Your task to perform on an android device: Show me recent news Image 0: 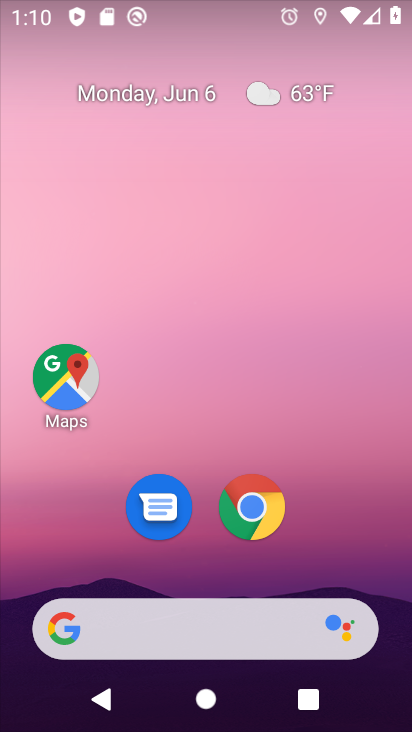
Step 0: click (168, 624)
Your task to perform on an android device: Show me recent news Image 1: 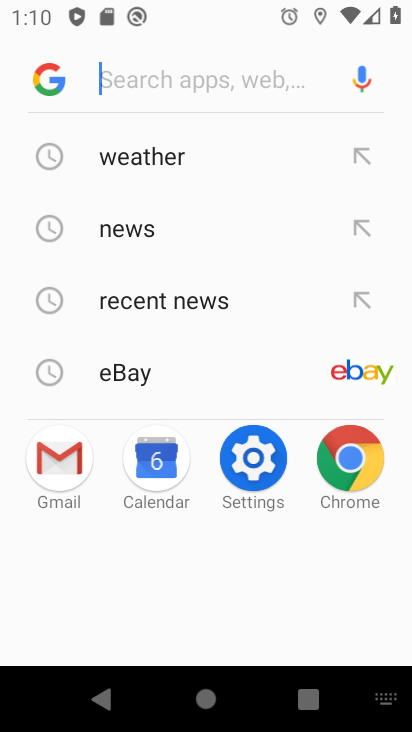
Step 1: click (141, 302)
Your task to perform on an android device: Show me recent news Image 2: 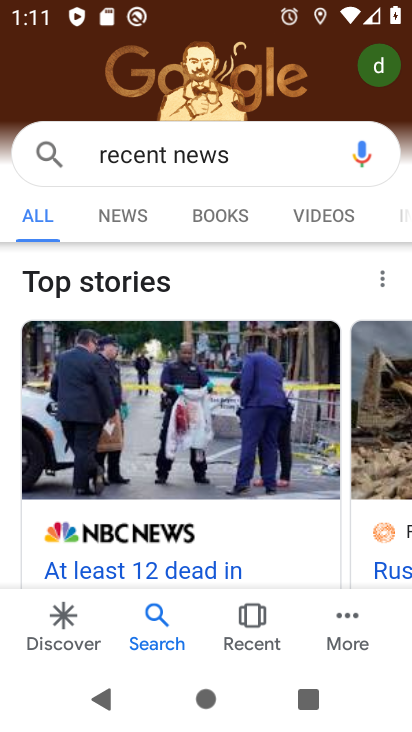
Step 2: click (129, 217)
Your task to perform on an android device: Show me recent news Image 3: 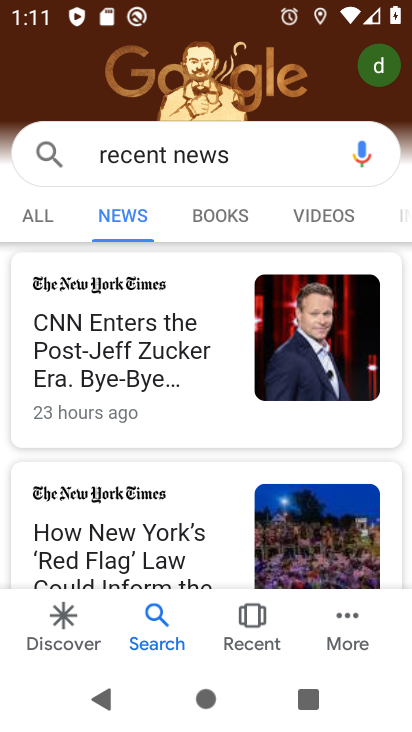
Step 3: task complete